Your task to perform on an android device: Open Amazon Image 0: 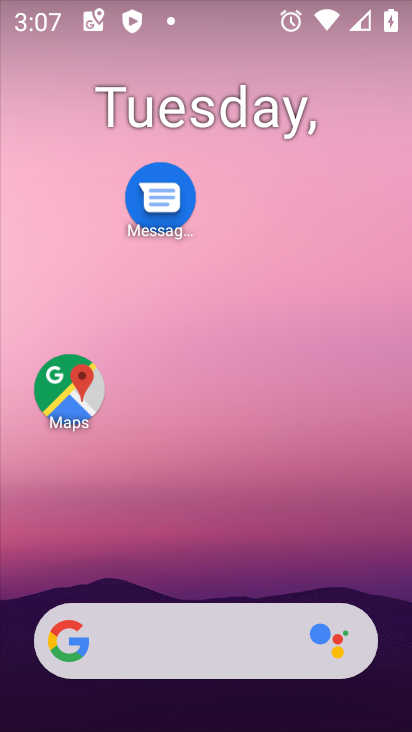
Step 0: drag from (177, 579) to (226, 199)
Your task to perform on an android device: Open Amazon Image 1: 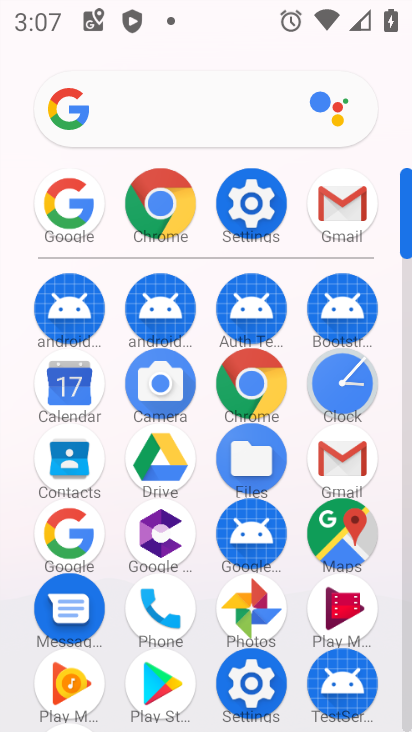
Step 1: click (180, 203)
Your task to perform on an android device: Open Amazon Image 2: 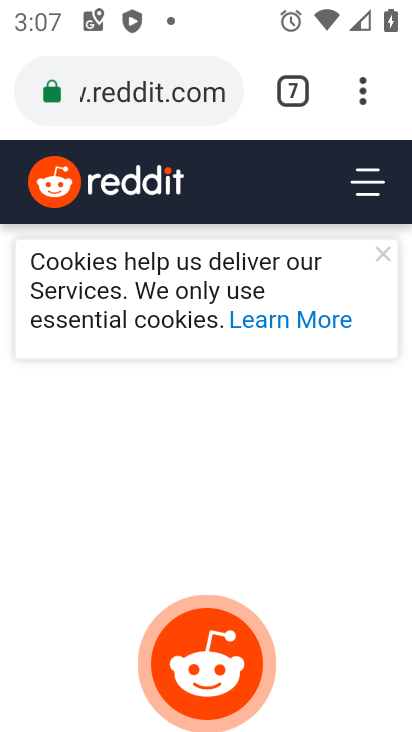
Step 2: click (290, 95)
Your task to perform on an android device: Open Amazon Image 3: 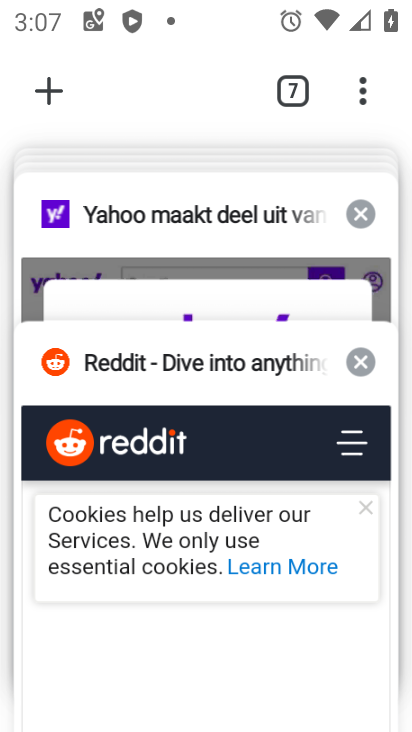
Step 3: drag from (205, 225) to (209, 411)
Your task to perform on an android device: Open Amazon Image 4: 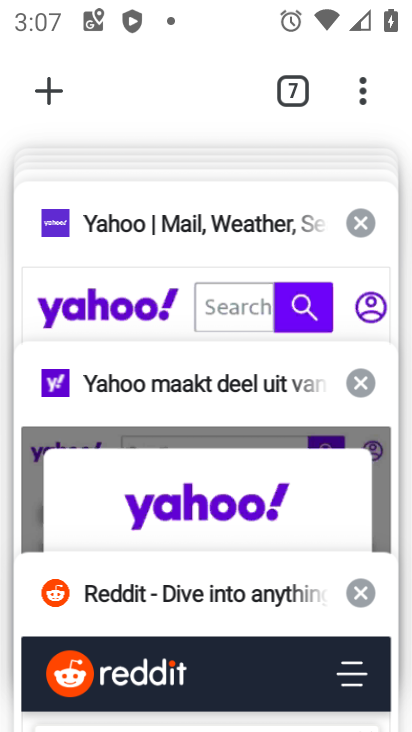
Step 4: drag from (223, 235) to (223, 444)
Your task to perform on an android device: Open Amazon Image 5: 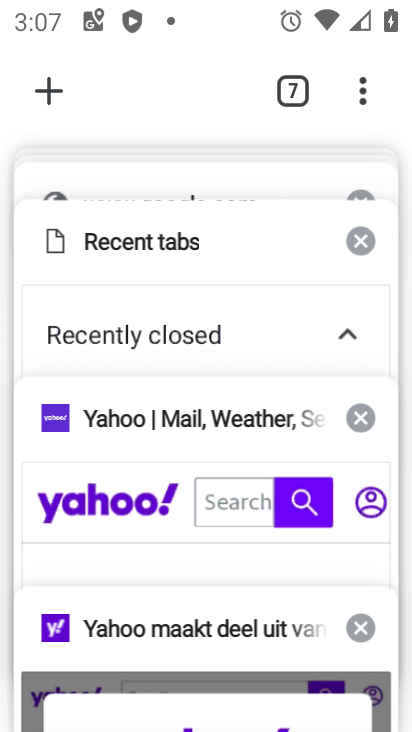
Step 5: drag from (244, 244) to (244, 470)
Your task to perform on an android device: Open Amazon Image 6: 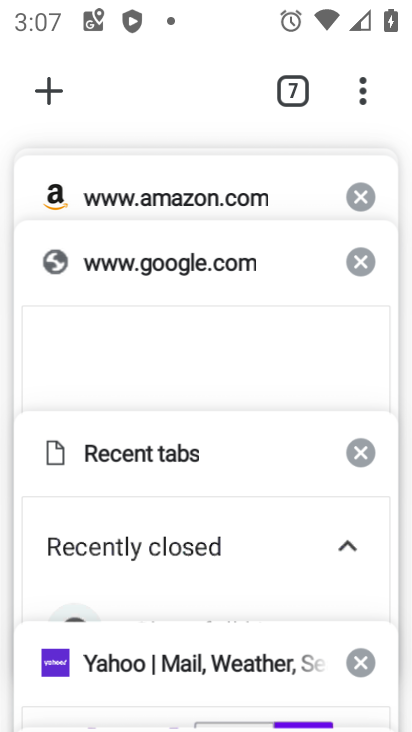
Step 6: drag from (232, 210) to (236, 408)
Your task to perform on an android device: Open Amazon Image 7: 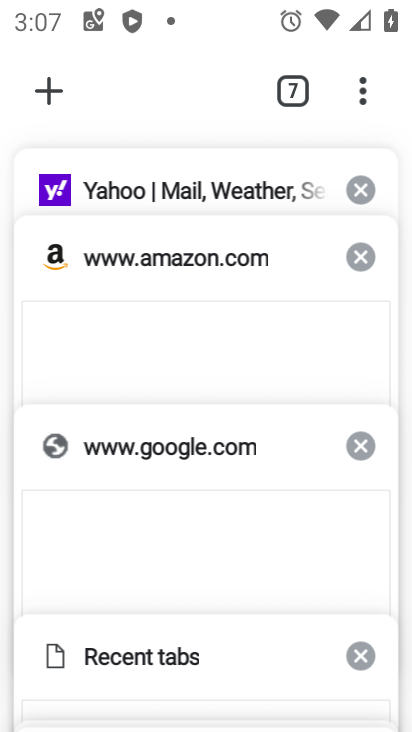
Step 7: click (173, 283)
Your task to perform on an android device: Open Amazon Image 8: 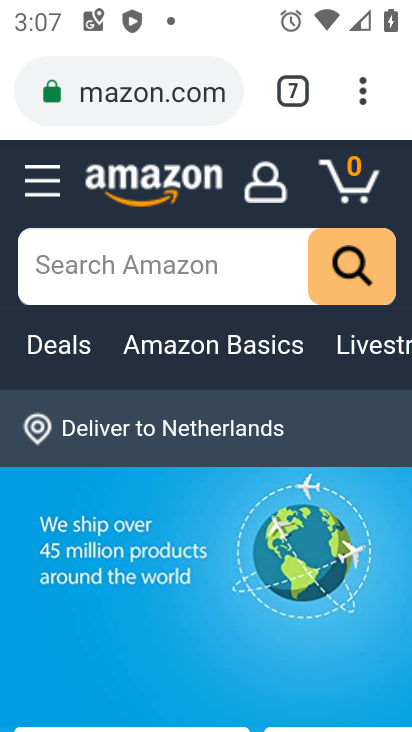
Step 8: task complete